Your task to perform on an android device: open app "Mercado Libre" Image 0: 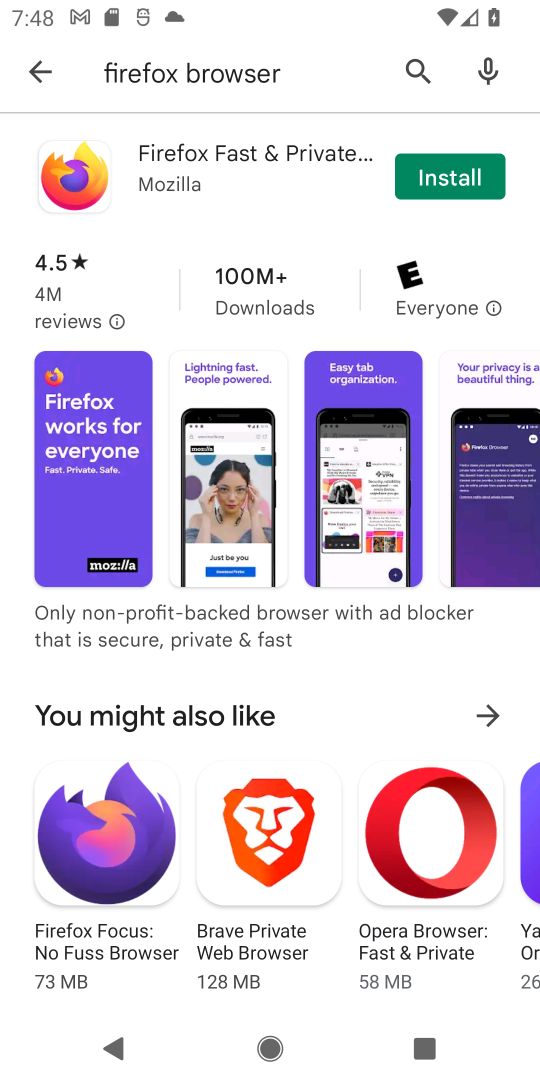
Step 0: click (224, 86)
Your task to perform on an android device: open app "Mercado Libre" Image 1: 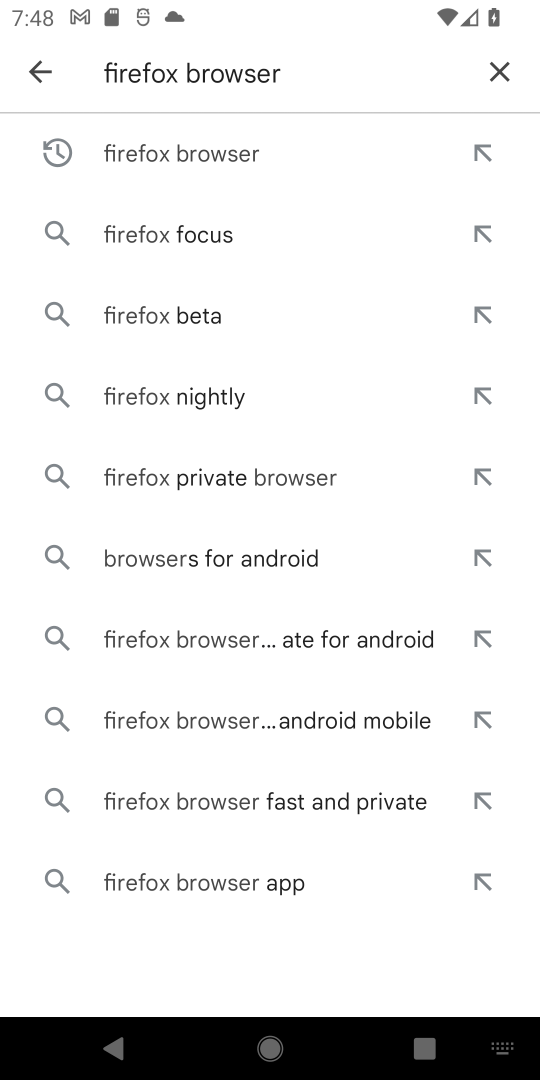
Step 1: click (494, 64)
Your task to perform on an android device: open app "Mercado Libre" Image 2: 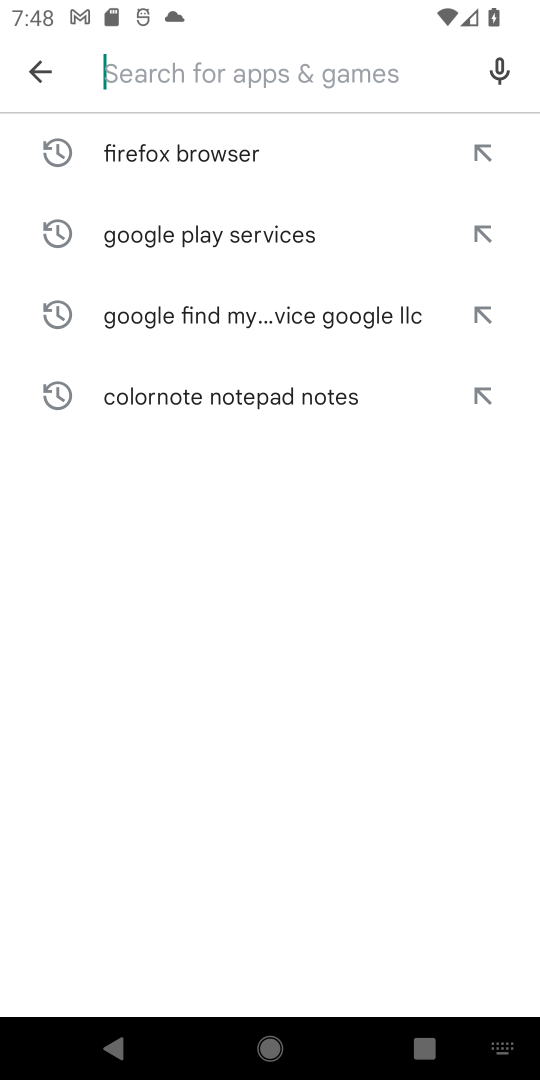
Step 2: type "mercado libre"
Your task to perform on an android device: open app "Mercado Libre" Image 3: 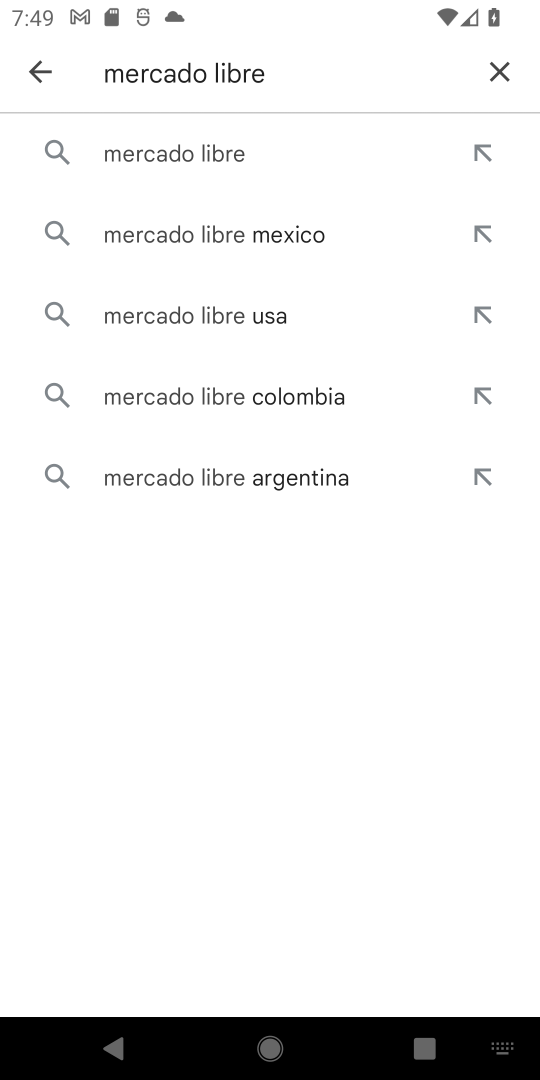
Step 3: click (189, 131)
Your task to perform on an android device: open app "Mercado Libre" Image 4: 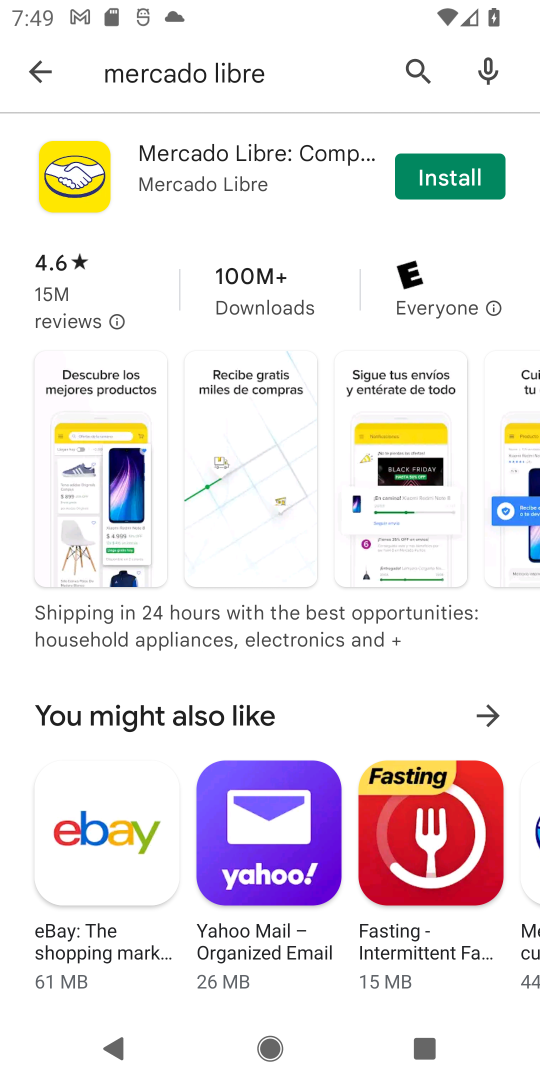
Step 4: task complete